Your task to perform on an android device: Go to location settings Image 0: 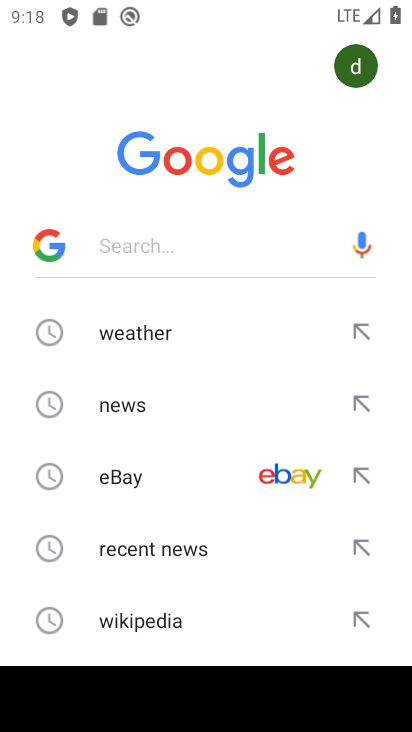
Step 0: press home button
Your task to perform on an android device: Go to location settings Image 1: 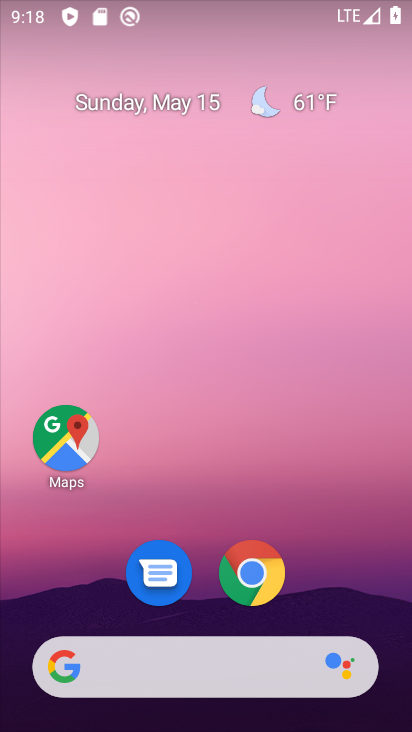
Step 1: drag from (5, 692) to (182, 153)
Your task to perform on an android device: Go to location settings Image 2: 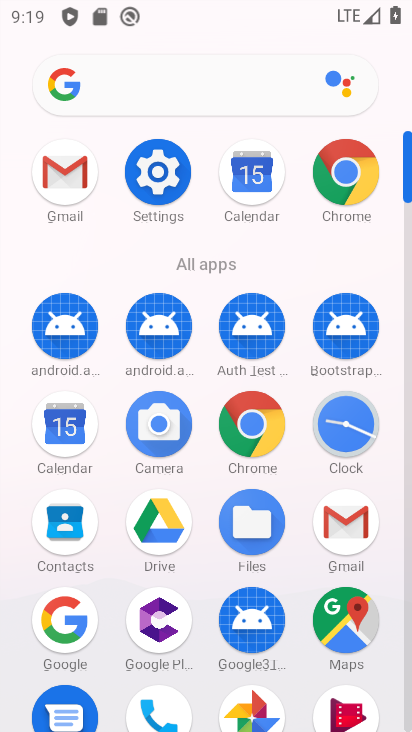
Step 2: click (145, 180)
Your task to perform on an android device: Go to location settings Image 3: 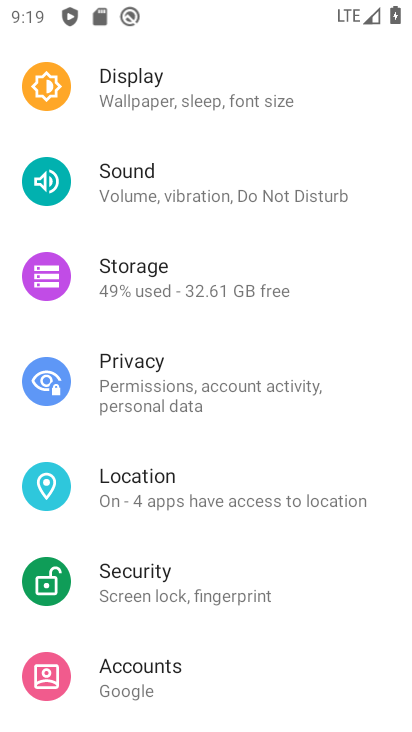
Step 3: click (153, 509)
Your task to perform on an android device: Go to location settings Image 4: 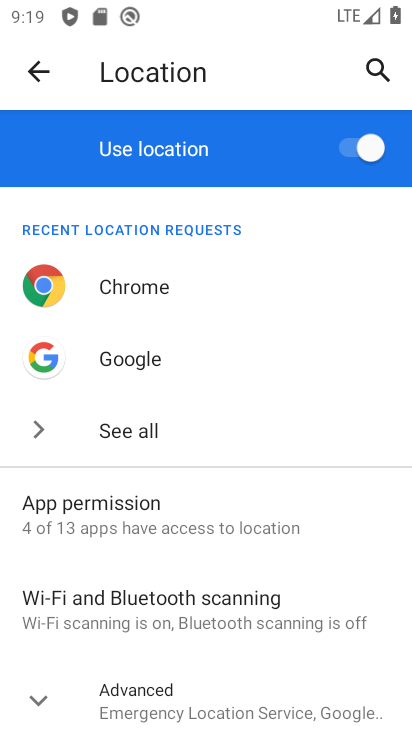
Step 4: click (381, 158)
Your task to perform on an android device: Go to location settings Image 5: 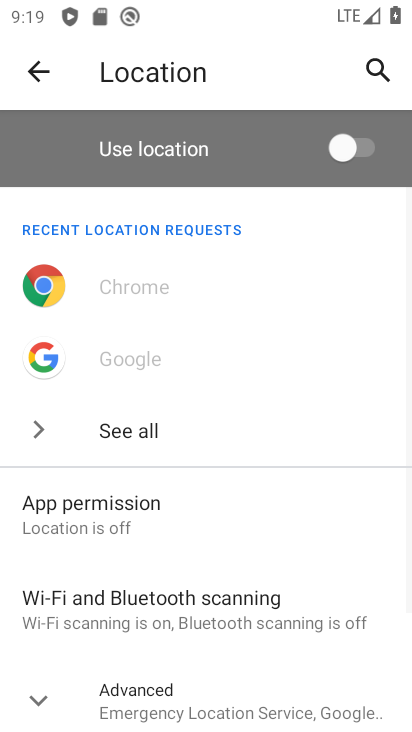
Step 5: task complete